Your task to perform on an android device: Go to location settings Image 0: 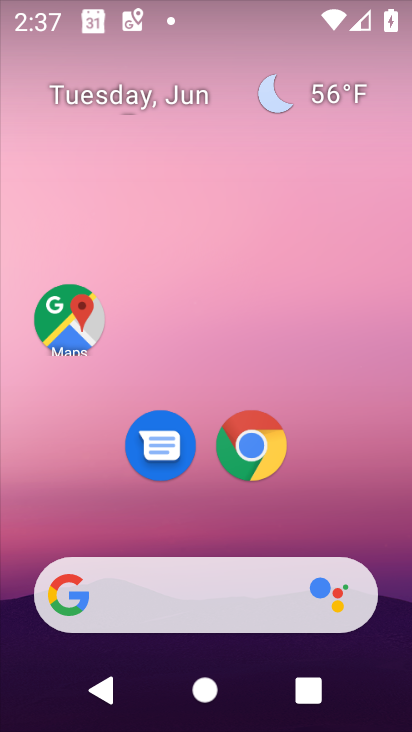
Step 0: click (402, 719)
Your task to perform on an android device: Go to location settings Image 1: 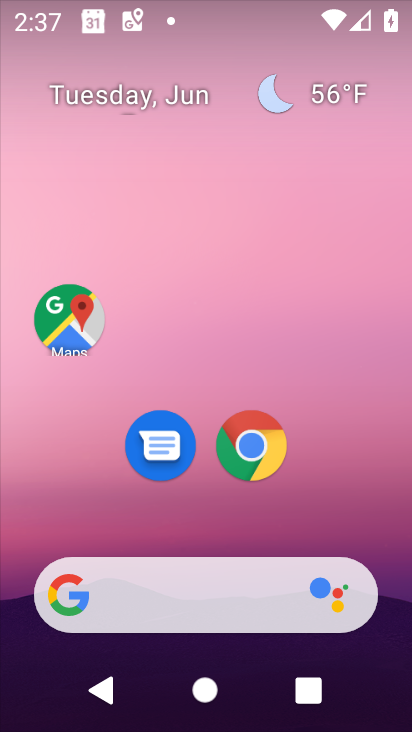
Step 1: drag from (275, 646) to (243, 35)
Your task to perform on an android device: Go to location settings Image 2: 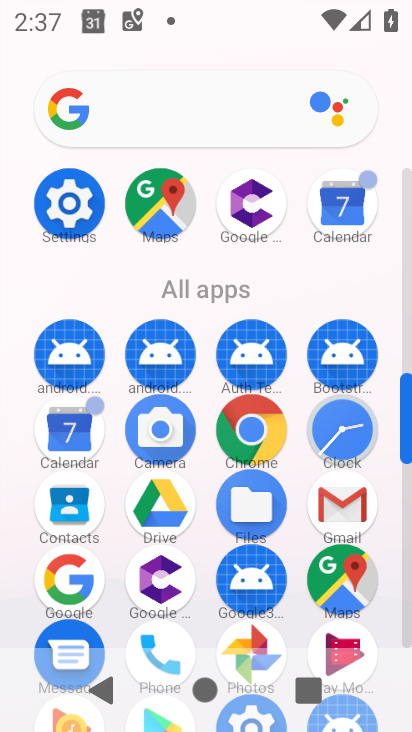
Step 2: click (101, 214)
Your task to perform on an android device: Go to location settings Image 3: 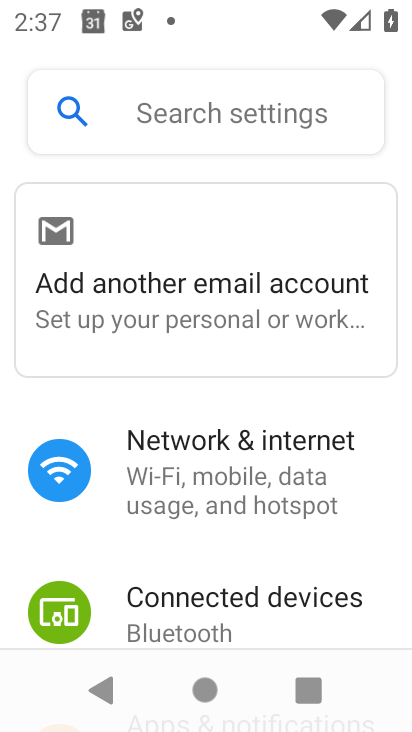
Step 3: drag from (259, 495) to (272, 192)
Your task to perform on an android device: Go to location settings Image 4: 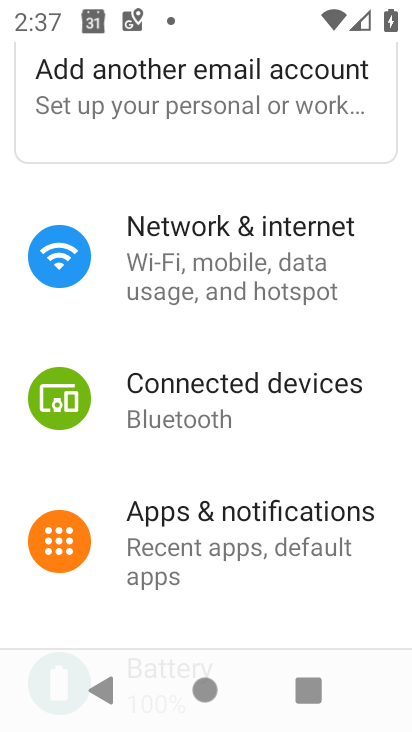
Step 4: drag from (211, 582) to (255, 197)
Your task to perform on an android device: Go to location settings Image 5: 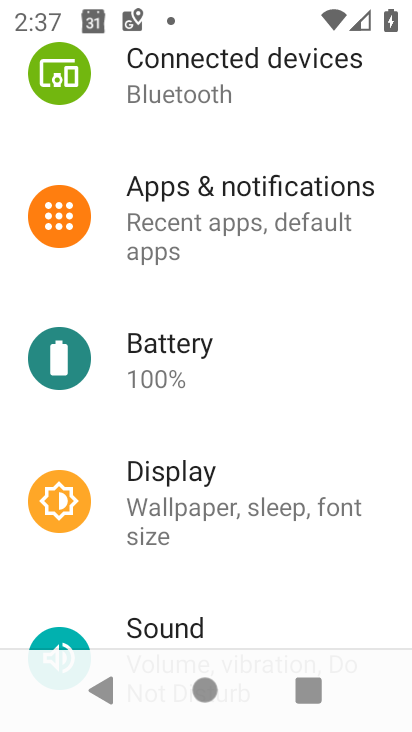
Step 5: drag from (157, 500) to (160, 212)
Your task to perform on an android device: Go to location settings Image 6: 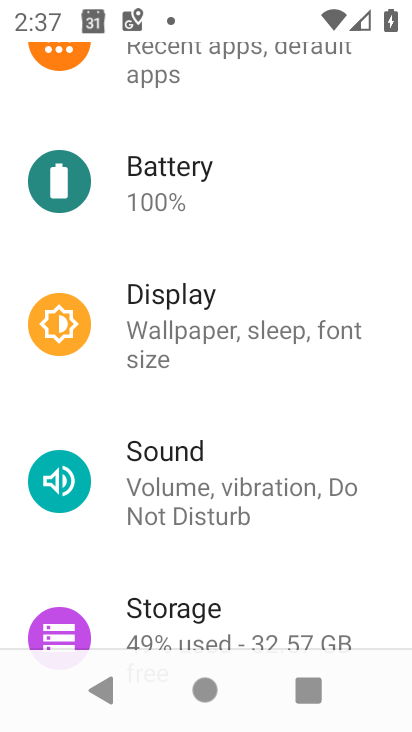
Step 6: drag from (201, 559) to (216, 203)
Your task to perform on an android device: Go to location settings Image 7: 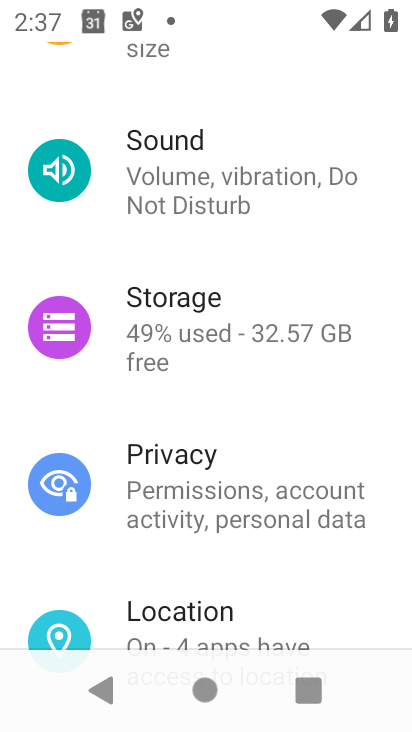
Step 7: click (203, 612)
Your task to perform on an android device: Go to location settings Image 8: 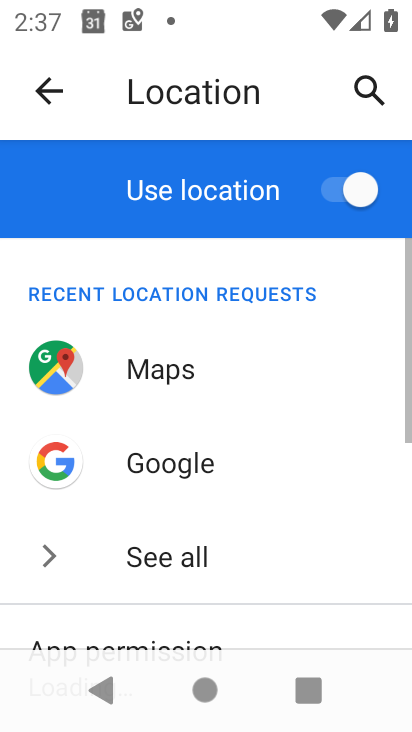
Step 8: task complete